Your task to perform on an android device: Show me the alarms in the clock app Image 0: 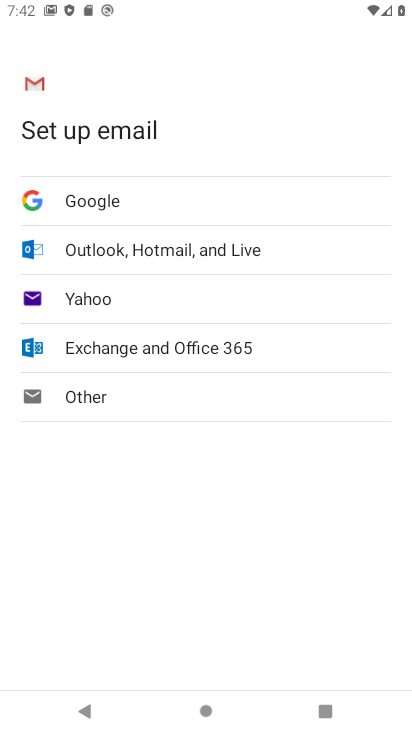
Step 0: press home button
Your task to perform on an android device: Show me the alarms in the clock app Image 1: 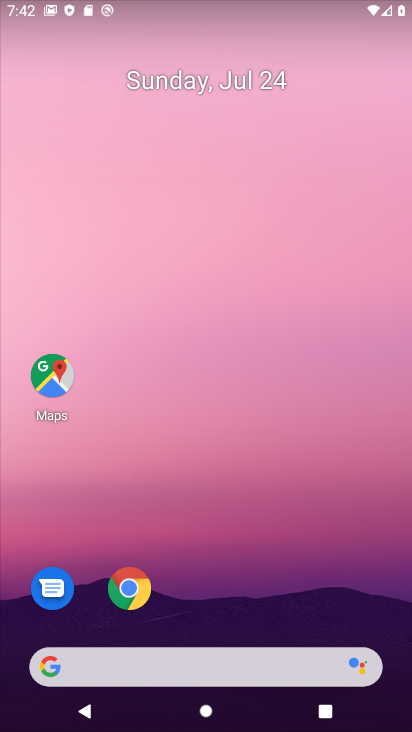
Step 1: drag from (165, 689) to (300, 48)
Your task to perform on an android device: Show me the alarms in the clock app Image 2: 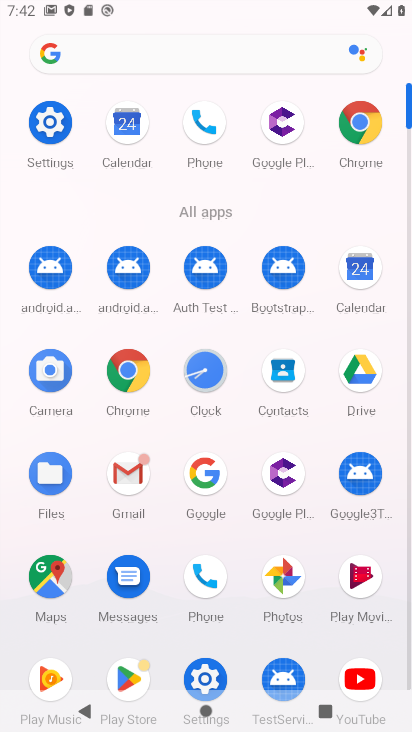
Step 2: click (210, 378)
Your task to perform on an android device: Show me the alarms in the clock app Image 3: 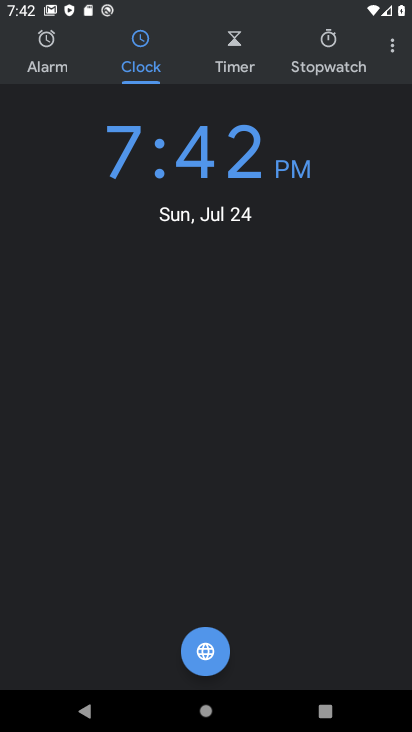
Step 3: click (54, 57)
Your task to perform on an android device: Show me the alarms in the clock app Image 4: 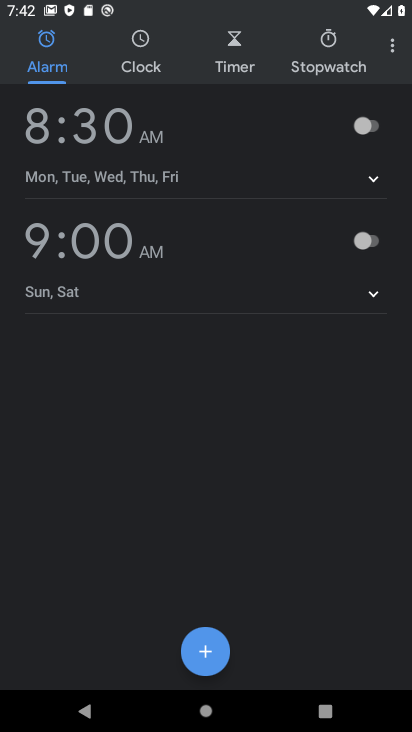
Step 4: click (103, 129)
Your task to perform on an android device: Show me the alarms in the clock app Image 5: 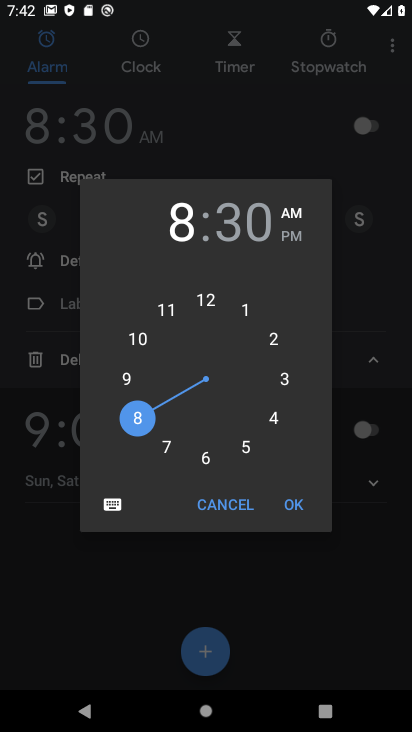
Step 5: task complete